Your task to perform on an android device: Go to settings Image 0: 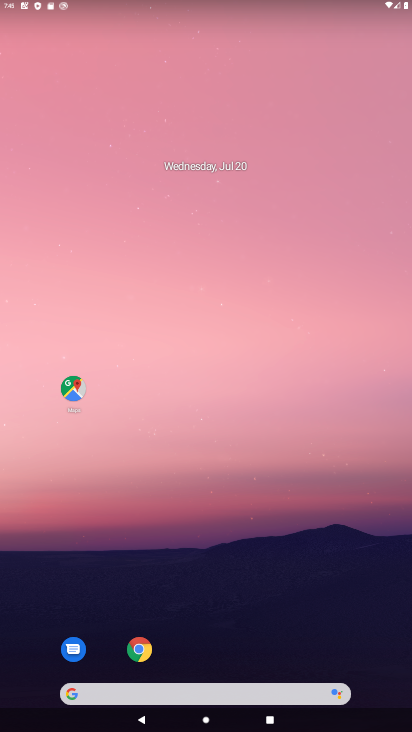
Step 0: drag from (267, 659) to (258, 207)
Your task to perform on an android device: Go to settings Image 1: 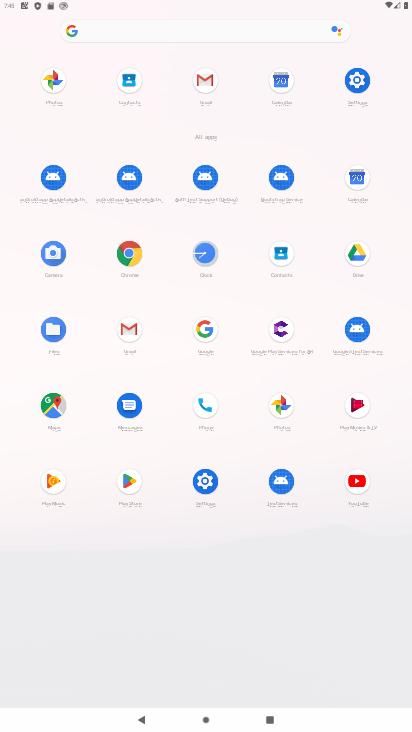
Step 1: click (369, 79)
Your task to perform on an android device: Go to settings Image 2: 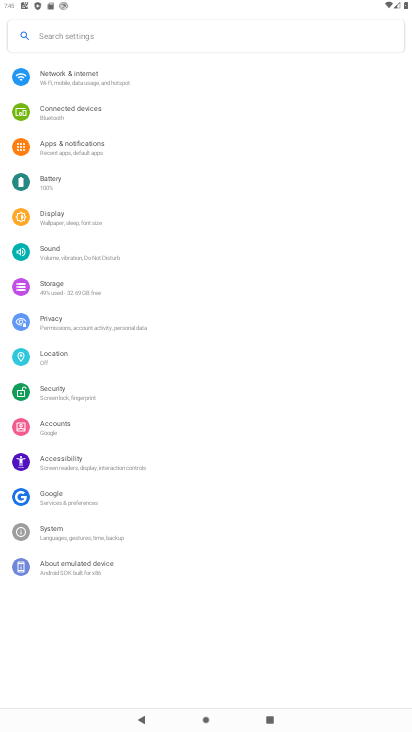
Step 2: task complete